Your task to perform on an android device: turn on javascript in the chrome app Image 0: 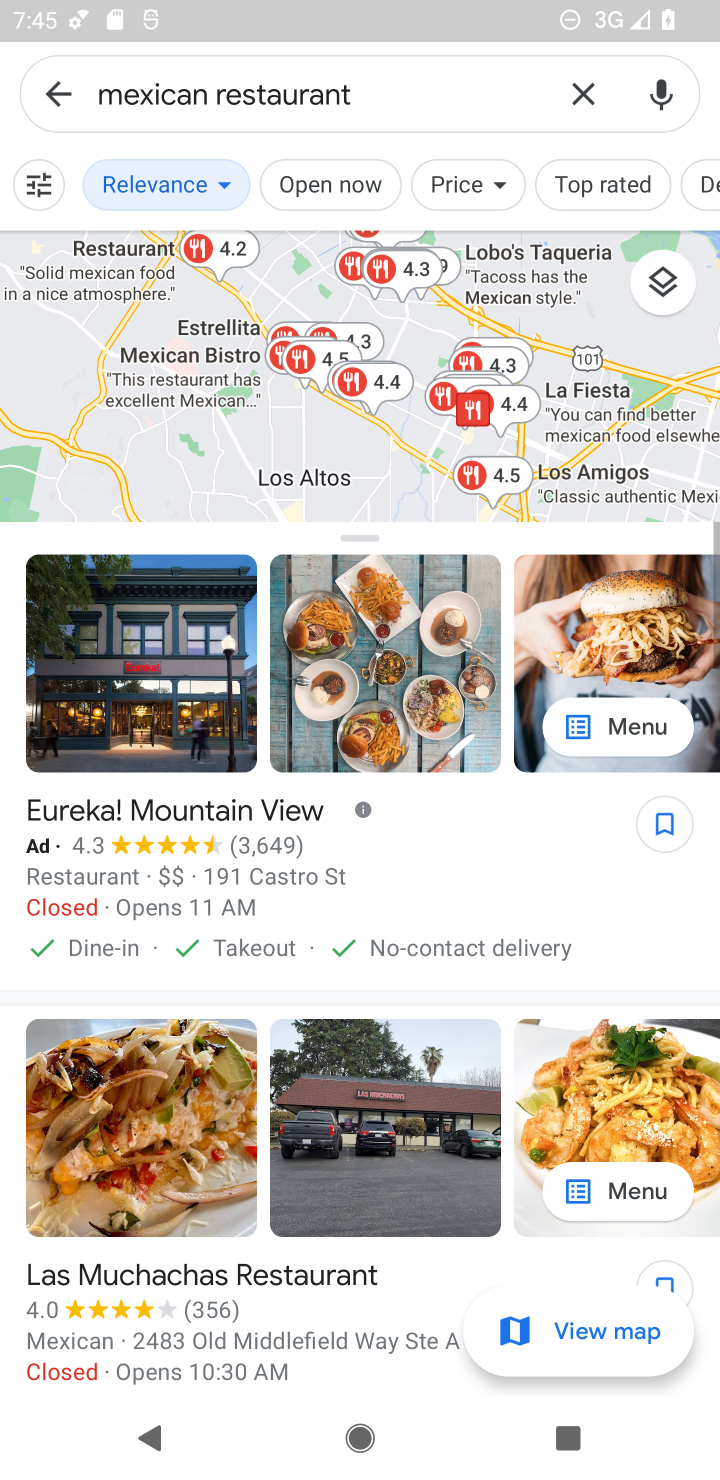
Step 0: press home button
Your task to perform on an android device: turn on javascript in the chrome app Image 1: 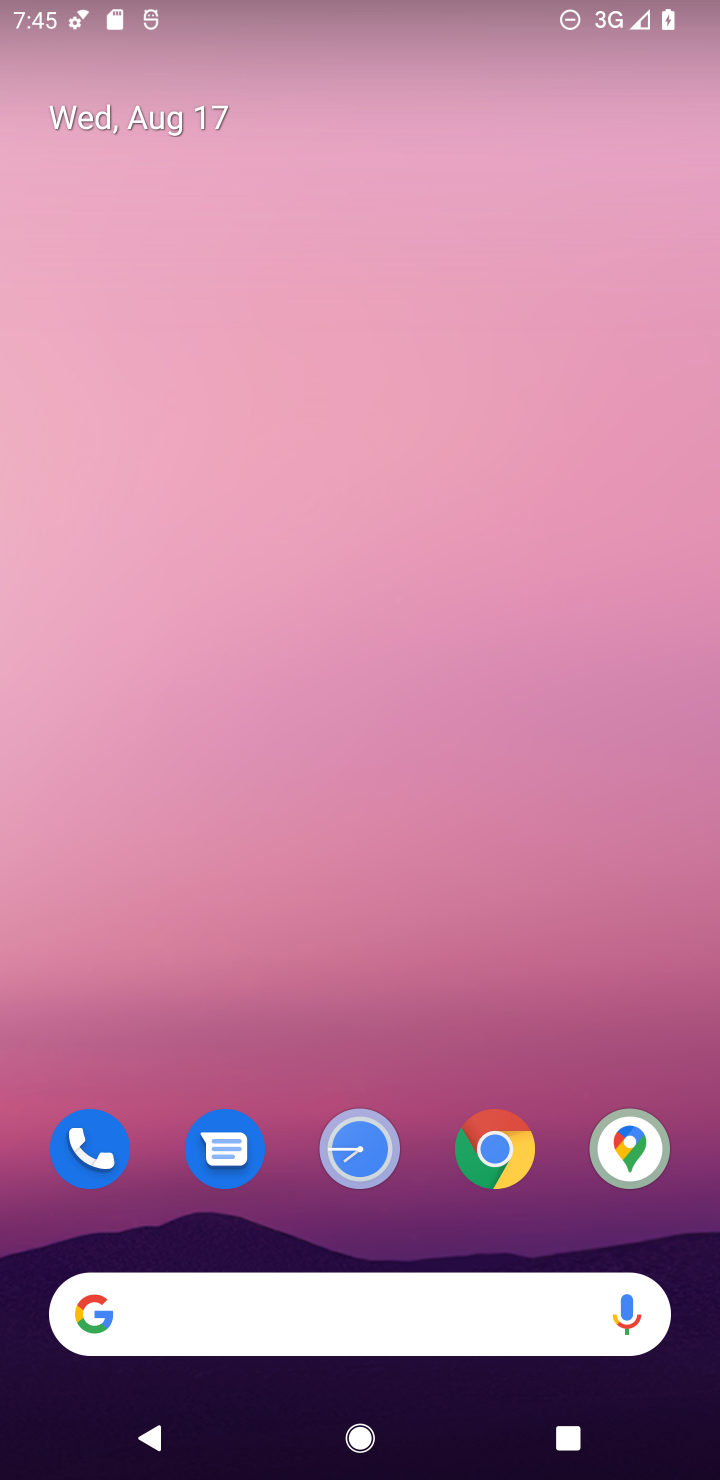
Step 1: click (493, 1149)
Your task to perform on an android device: turn on javascript in the chrome app Image 2: 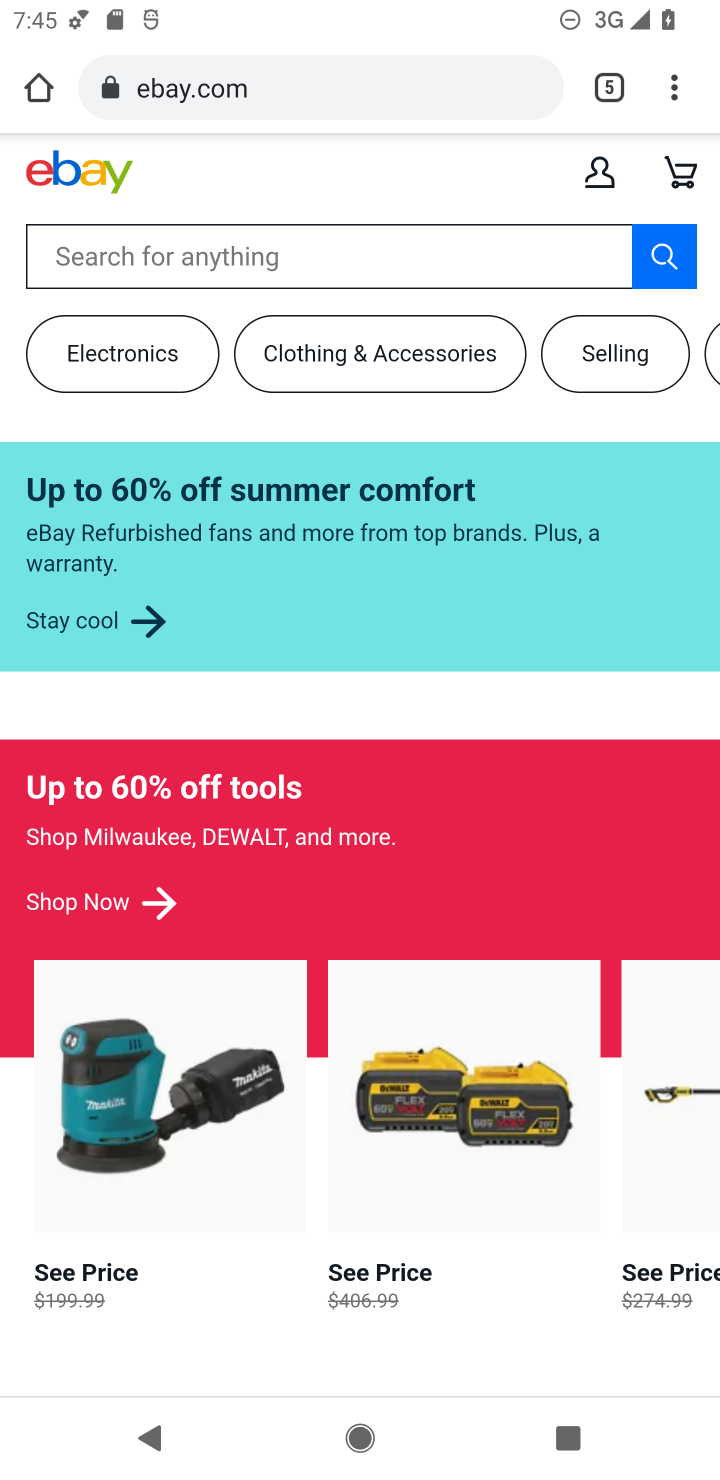
Step 2: click (671, 94)
Your task to perform on an android device: turn on javascript in the chrome app Image 3: 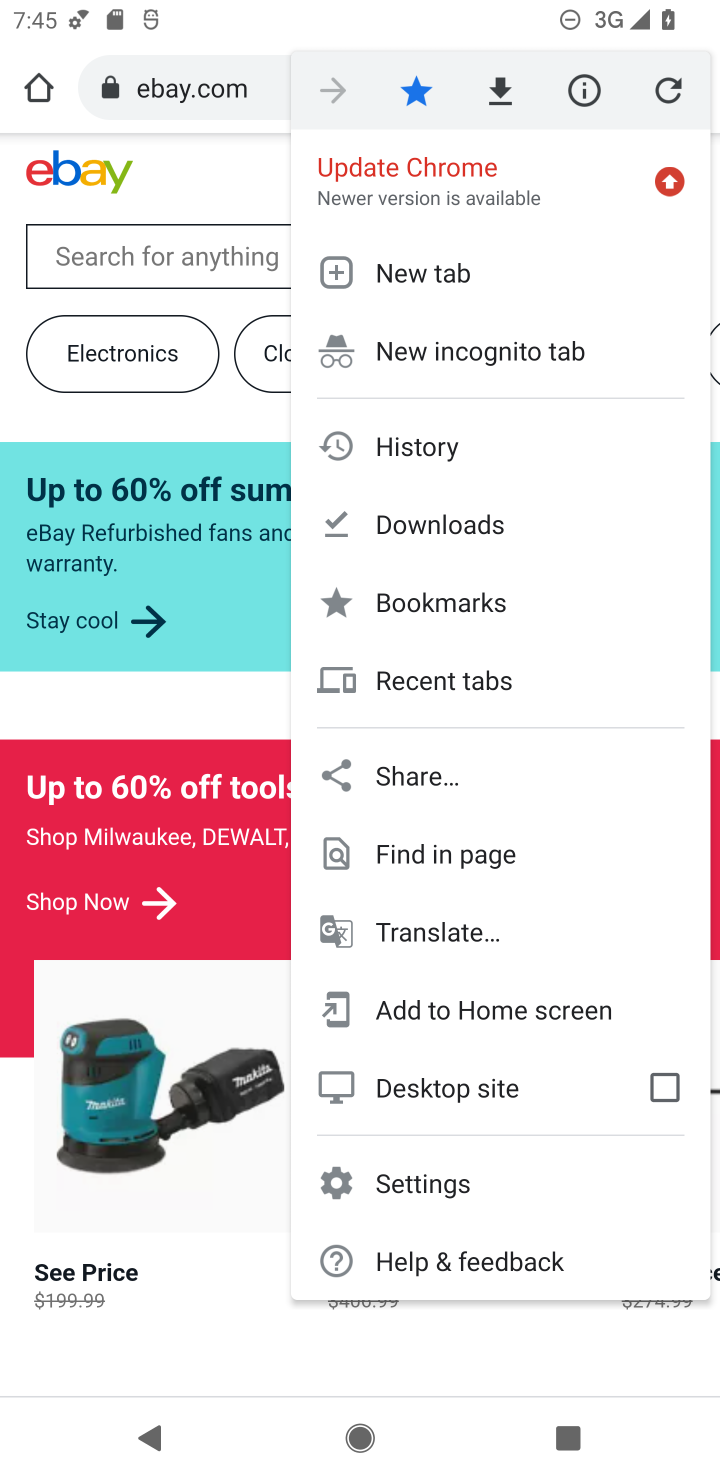
Step 3: click (441, 1178)
Your task to perform on an android device: turn on javascript in the chrome app Image 4: 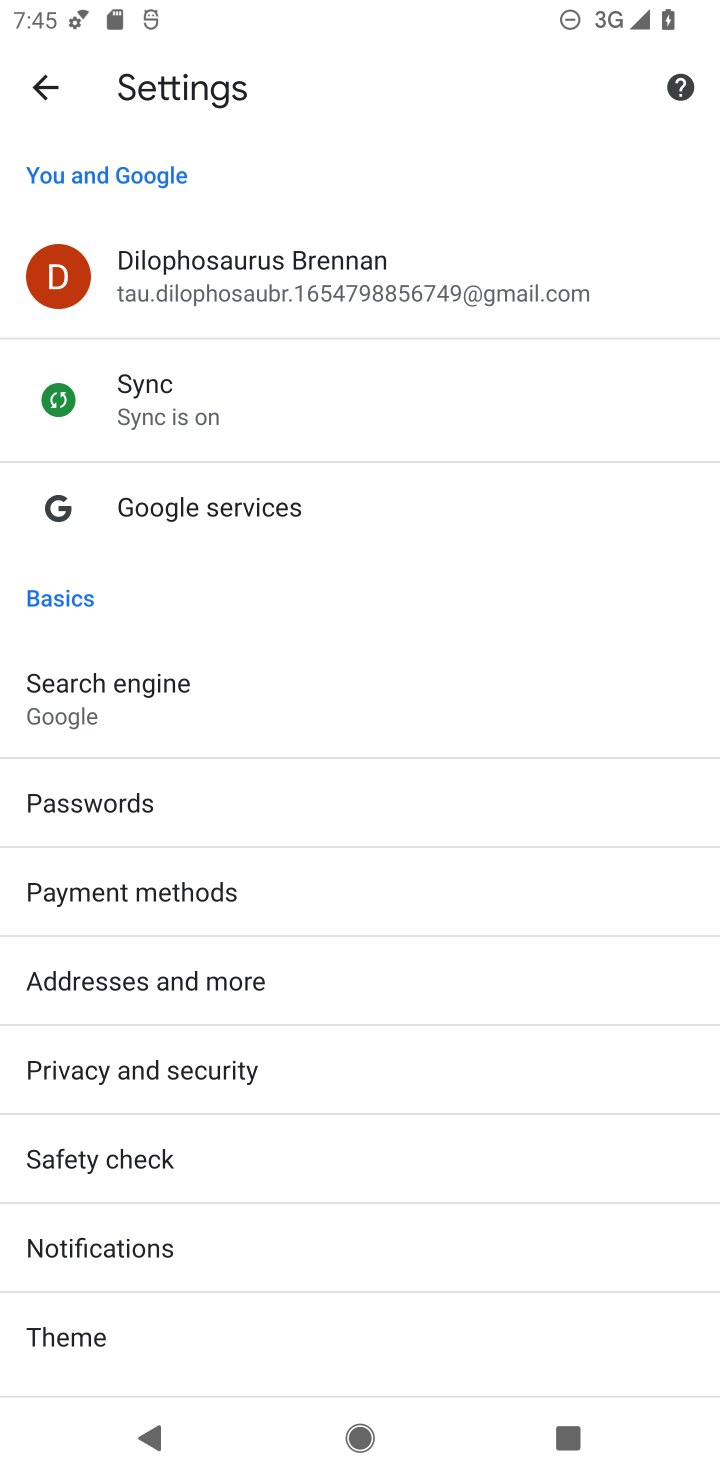
Step 4: drag from (365, 1206) to (351, 558)
Your task to perform on an android device: turn on javascript in the chrome app Image 5: 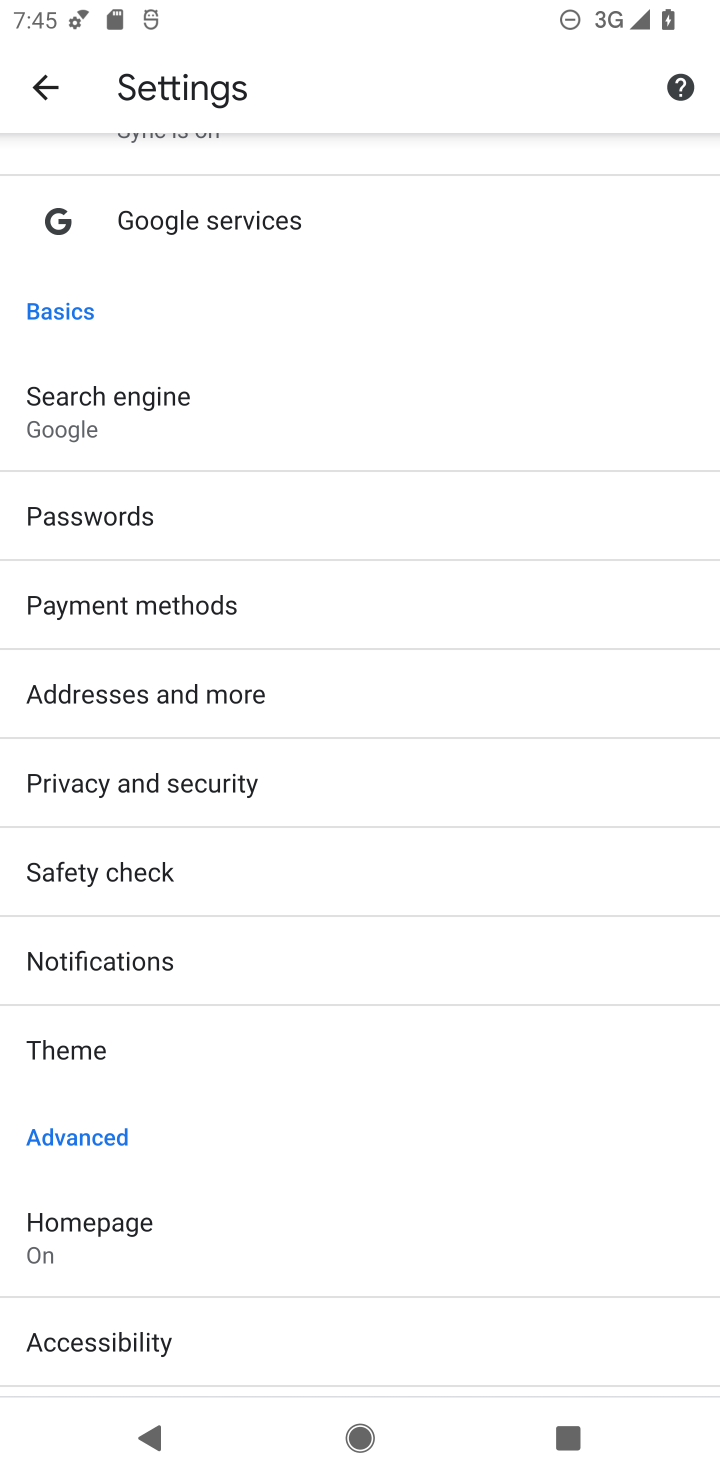
Step 5: drag from (316, 1172) to (257, 413)
Your task to perform on an android device: turn on javascript in the chrome app Image 6: 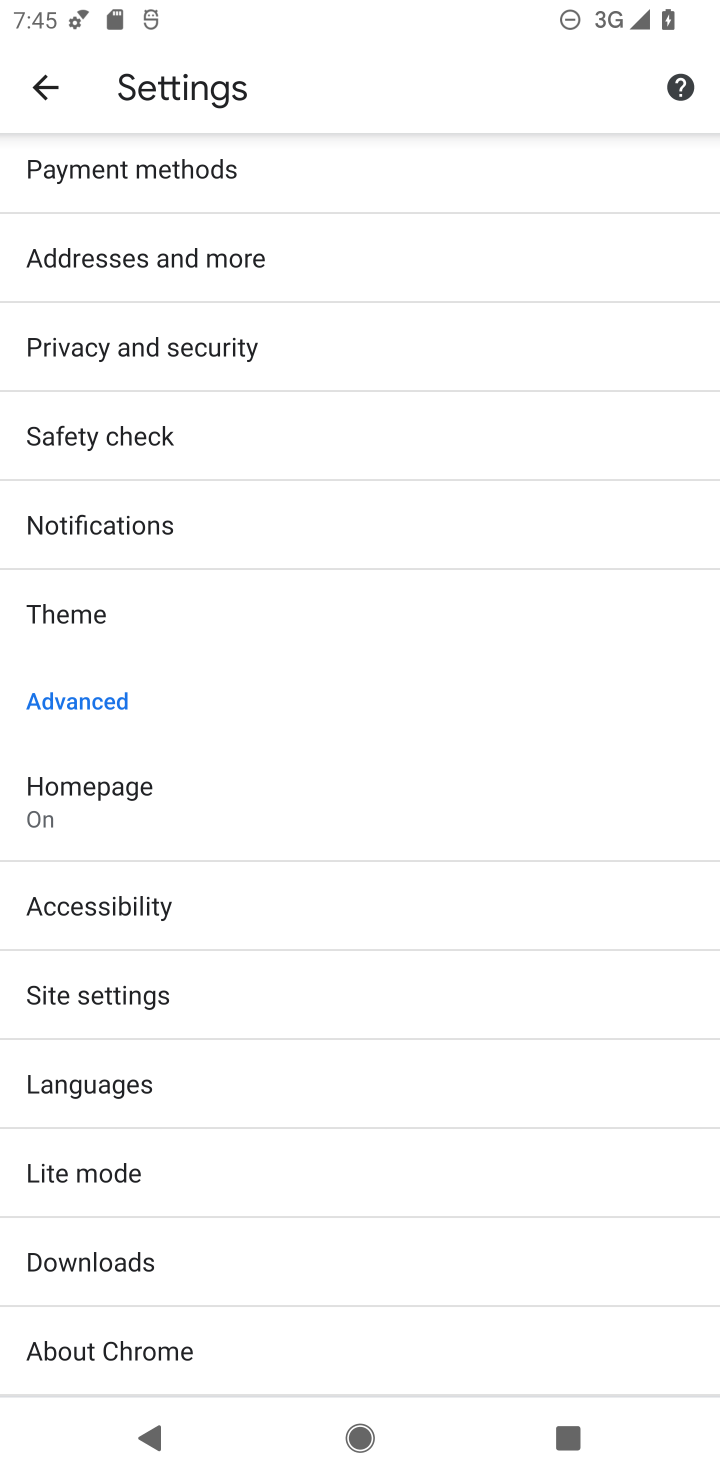
Step 6: click (80, 998)
Your task to perform on an android device: turn on javascript in the chrome app Image 7: 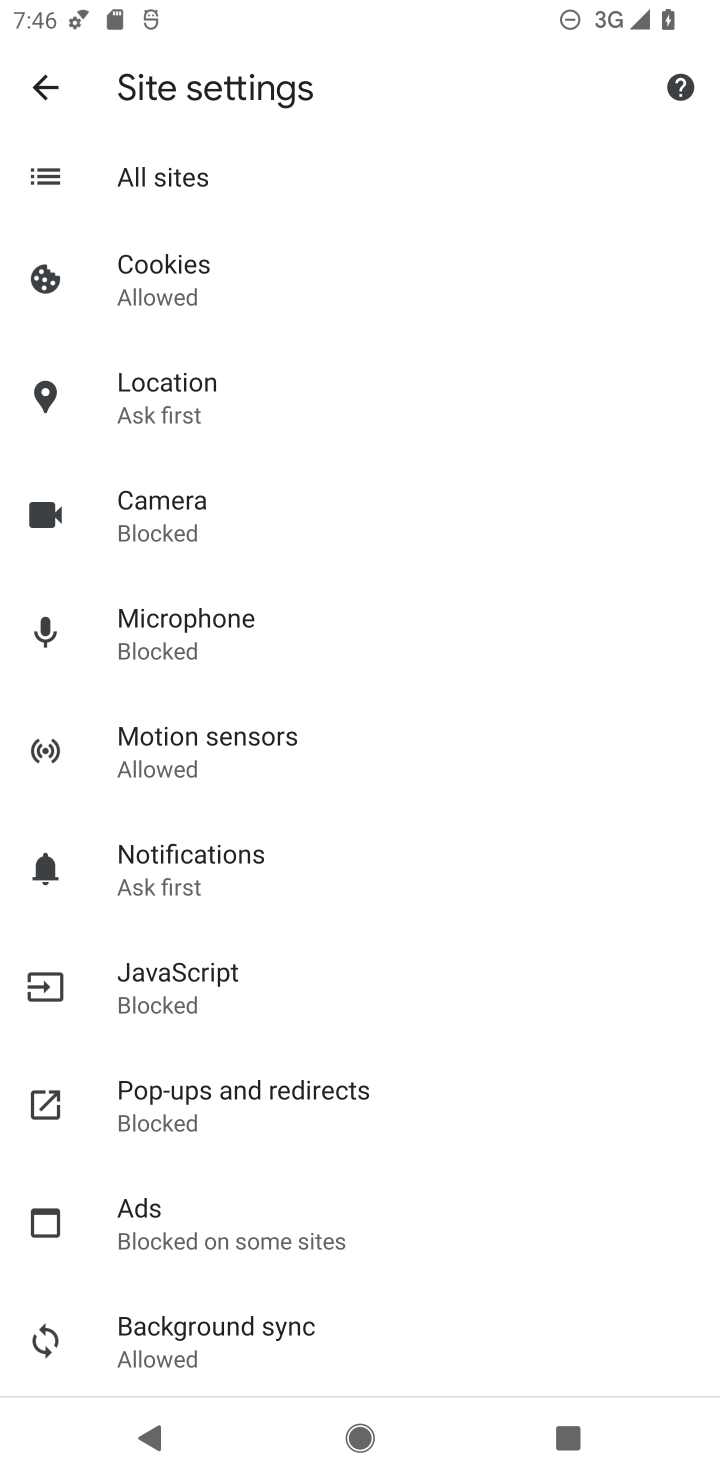
Step 7: click (194, 968)
Your task to perform on an android device: turn on javascript in the chrome app Image 8: 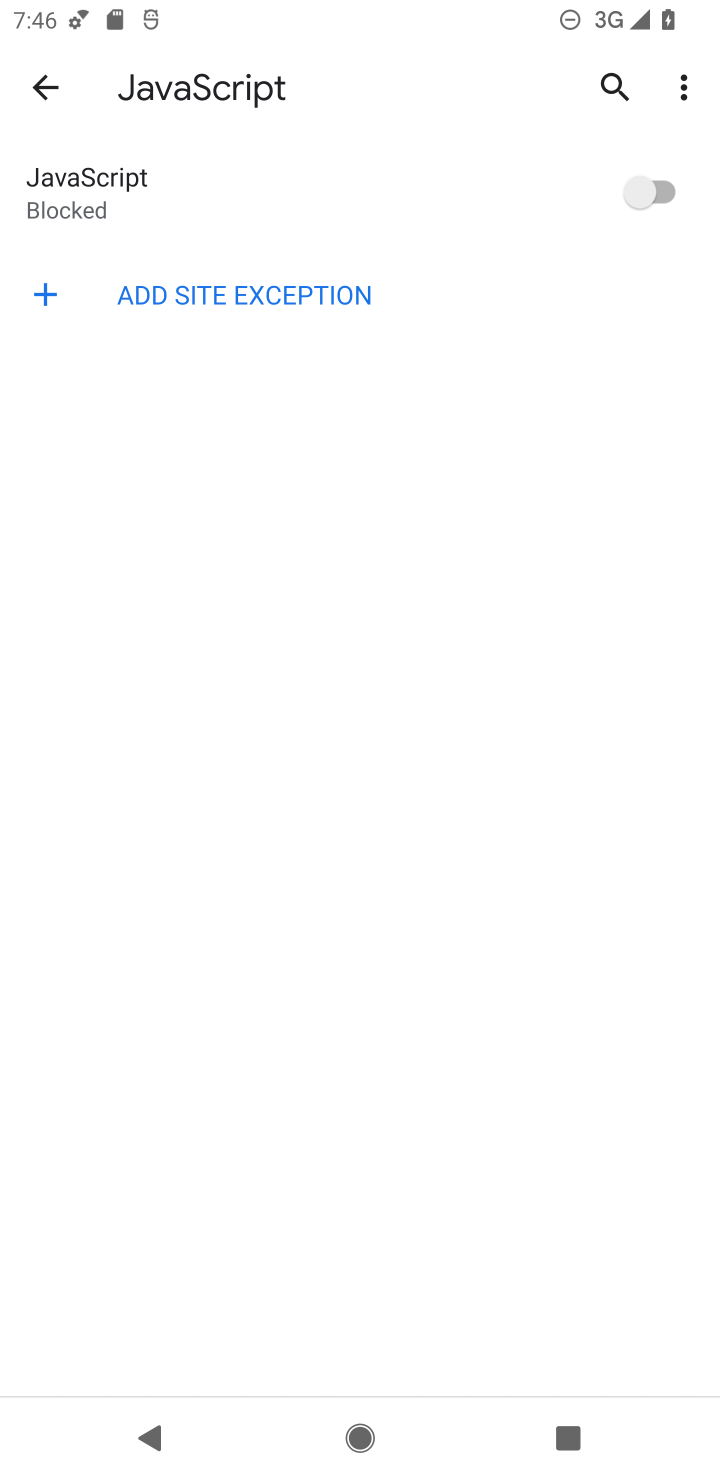
Step 8: click (640, 192)
Your task to perform on an android device: turn on javascript in the chrome app Image 9: 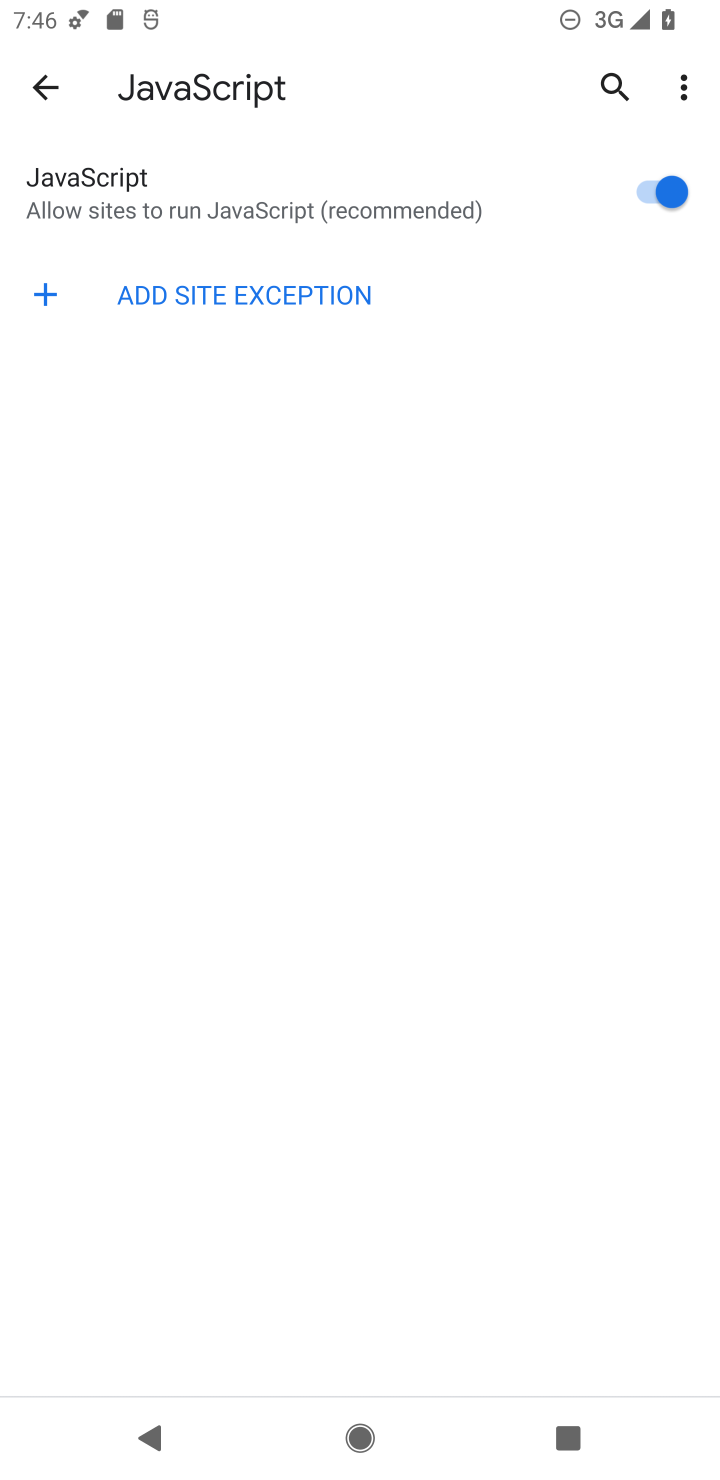
Step 9: task complete